Your task to perform on an android device: move an email to a new category in the gmail app Image 0: 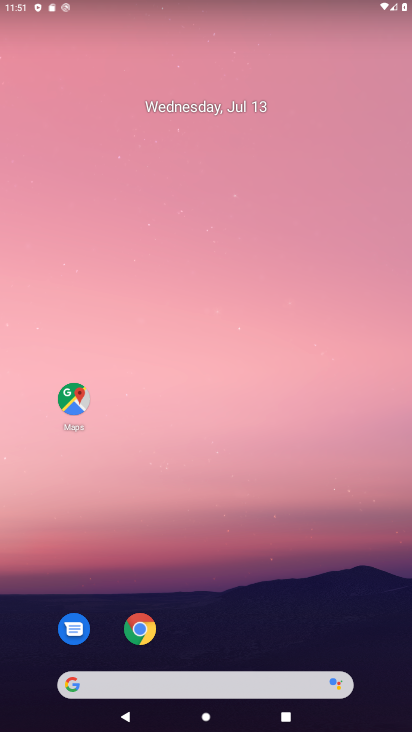
Step 0: drag from (217, 632) to (181, 118)
Your task to perform on an android device: move an email to a new category in the gmail app Image 1: 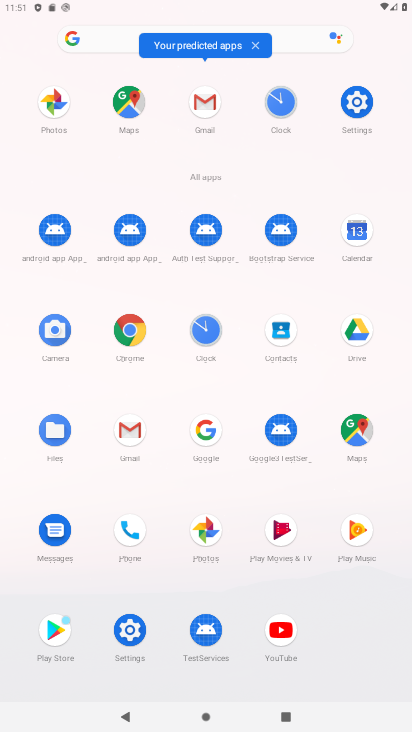
Step 1: click (204, 99)
Your task to perform on an android device: move an email to a new category in the gmail app Image 2: 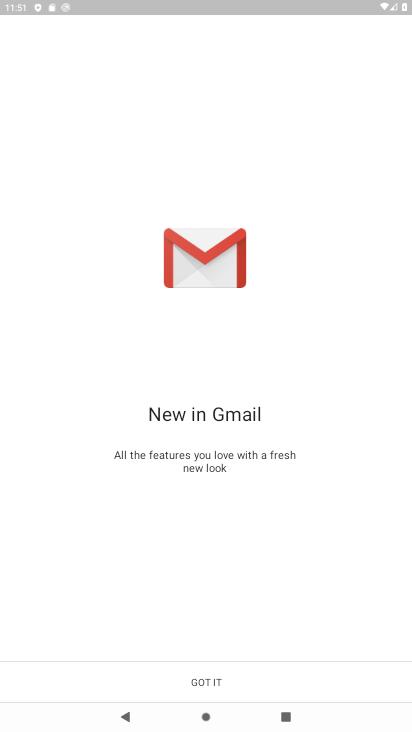
Step 2: click (213, 680)
Your task to perform on an android device: move an email to a new category in the gmail app Image 3: 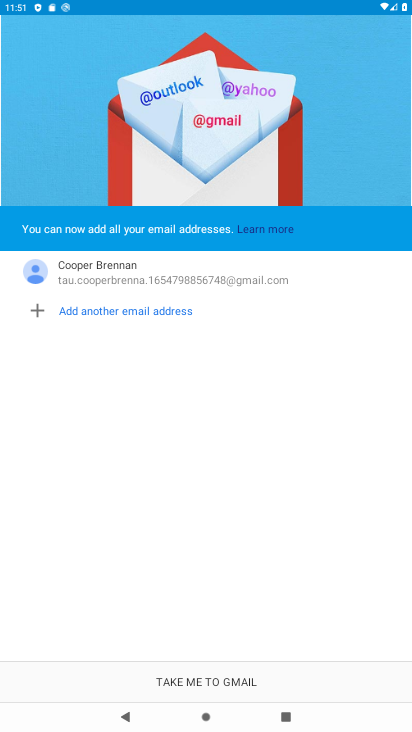
Step 3: click (213, 680)
Your task to perform on an android device: move an email to a new category in the gmail app Image 4: 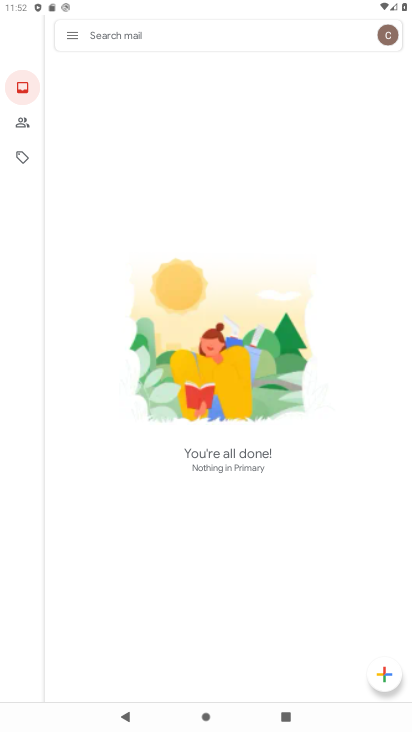
Step 4: task complete